Your task to perform on an android device: What's the news about the US dollar? Image 0: 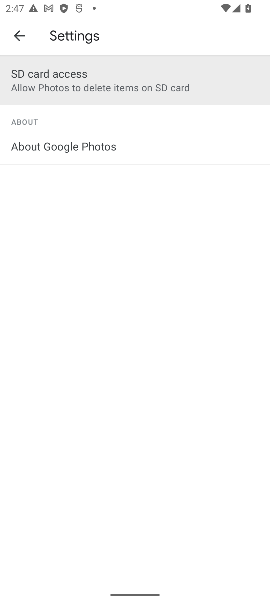
Step 0: press back button
Your task to perform on an android device: What's the news about the US dollar? Image 1: 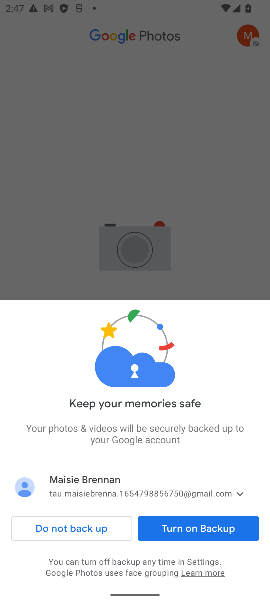
Step 1: click (112, 145)
Your task to perform on an android device: What's the news about the US dollar? Image 2: 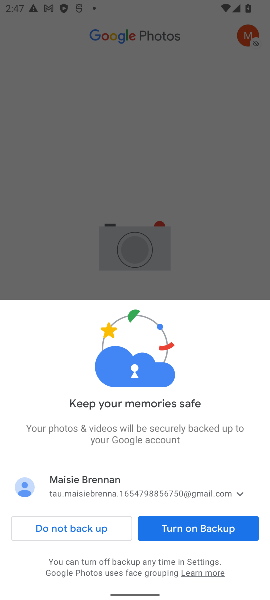
Step 2: press back button
Your task to perform on an android device: What's the news about the US dollar? Image 3: 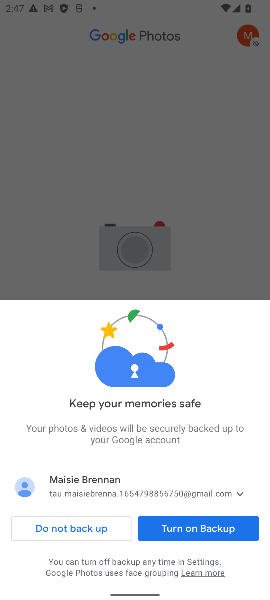
Step 3: press back button
Your task to perform on an android device: What's the news about the US dollar? Image 4: 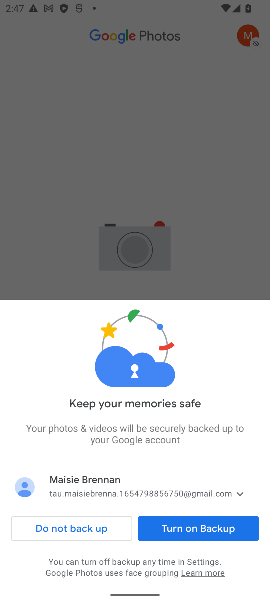
Step 4: press home button
Your task to perform on an android device: What's the news about the US dollar? Image 5: 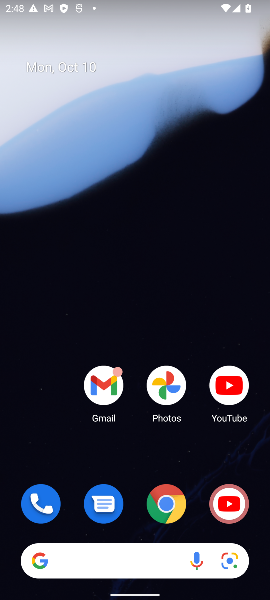
Step 5: drag from (146, 451) to (52, 100)
Your task to perform on an android device: What's the news about the US dollar? Image 6: 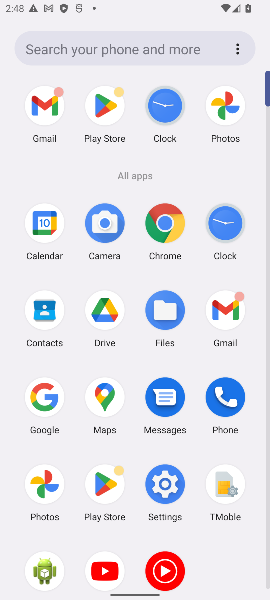
Step 6: click (169, 229)
Your task to perform on an android device: What's the news about the US dollar? Image 7: 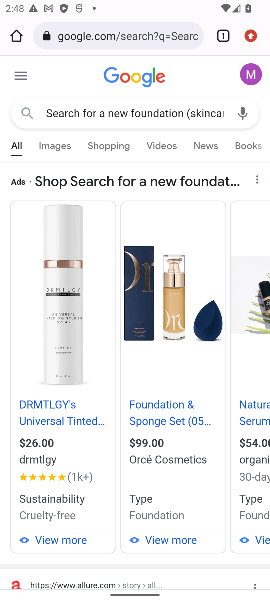
Step 7: click (174, 117)
Your task to perform on an android device: What's the news about the US dollar? Image 8: 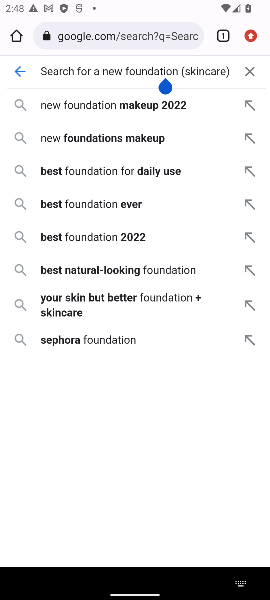
Step 8: click (182, 35)
Your task to perform on an android device: What's the news about the US dollar? Image 9: 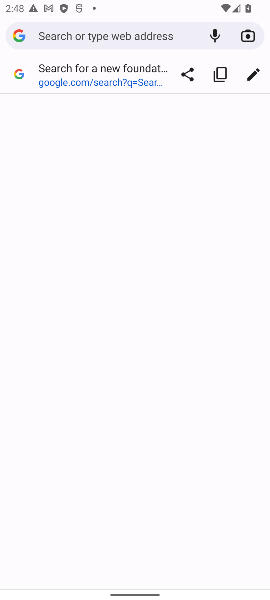
Step 9: type "What's the news about the US dollar?"
Your task to perform on an android device: What's the news about the US dollar? Image 10: 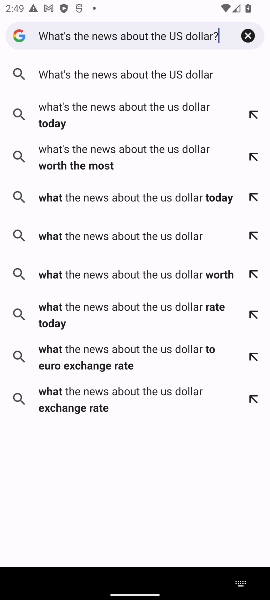
Step 10: press enter
Your task to perform on an android device: What's the news about the US dollar? Image 11: 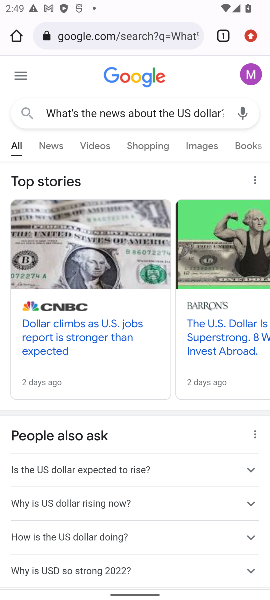
Step 11: task complete